Your task to perform on an android device: Search for Mexican restaurants on Maps Image 0: 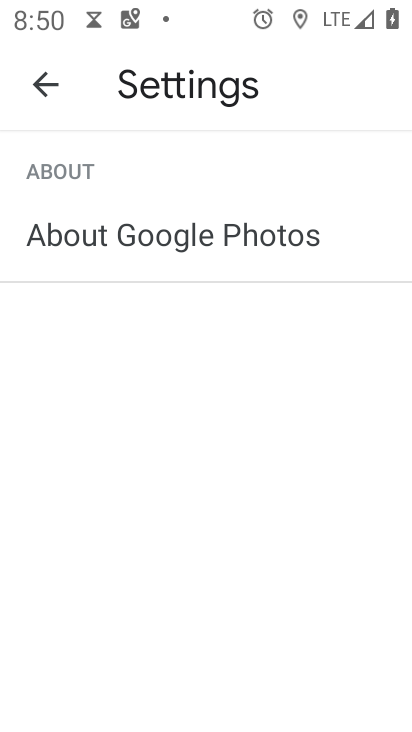
Step 0: press home button
Your task to perform on an android device: Search for Mexican restaurants on Maps Image 1: 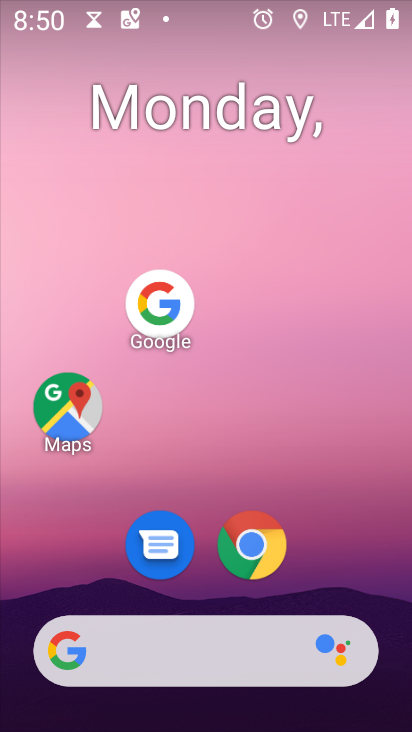
Step 1: click (67, 416)
Your task to perform on an android device: Search for Mexican restaurants on Maps Image 2: 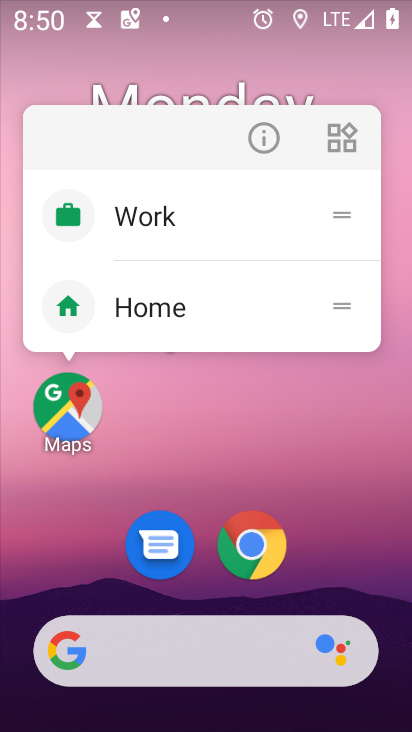
Step 2: click (62, 427)
Your task to perform on an android device: Search for Mexican restaurants on Maps Image 3: 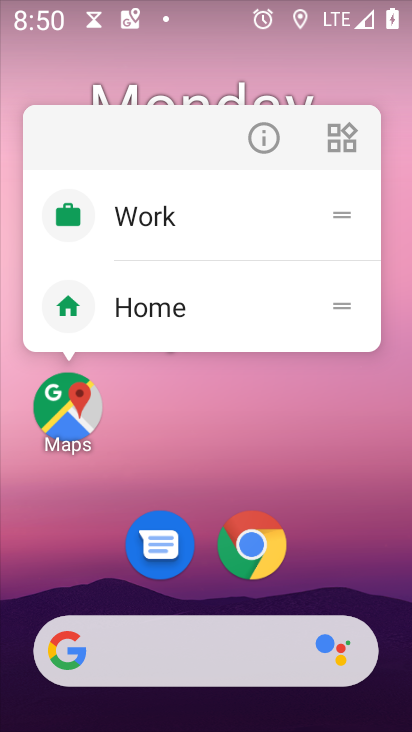
Step 3: click (62, 427)
Your task to perform on an android device: Search for Mexican restaurants on Maps Image 4: 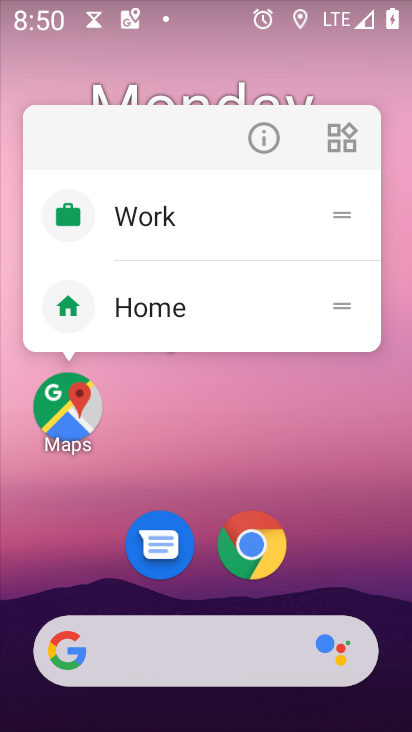
Step 4: click (63, 406)
Your task to perform on an android device: Search for Mexican restaurants on Maps Image 5: 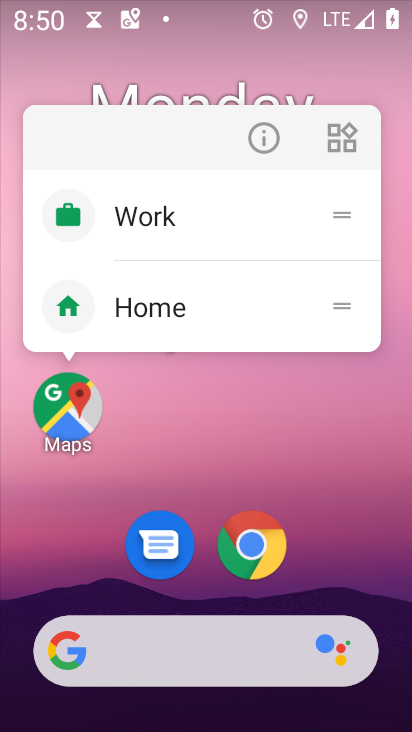
Step 5: click (72, 415)
Your task to perform on an android device: Search for Mexican restaurants on Maps Image 6: 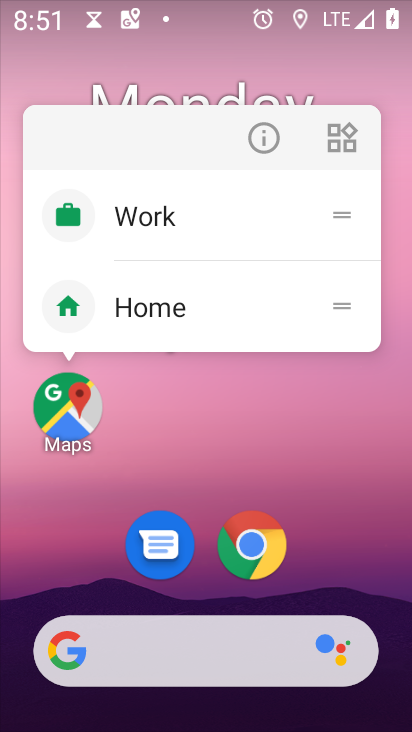
Step 6: click (64, 413)
Your task to perform on an android device: Search for Mexican restaurants on Maps Image 7: 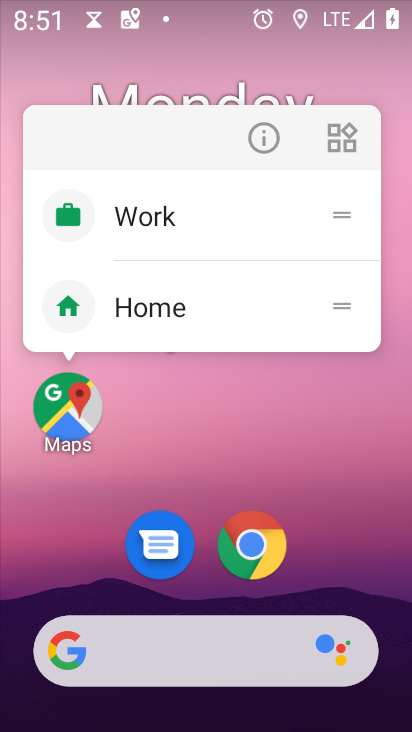
Step 7: click (70, 421)
Your task to perform on an android device: Search for Mexican restaurants on Maps Image 8: 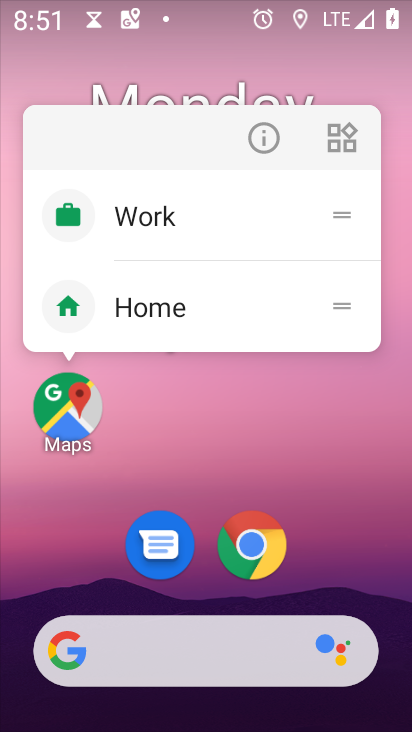
Step 8: click (67, 426)
Your task to perform on an android device: Search for Mexican restaurants on Maps Image 9: 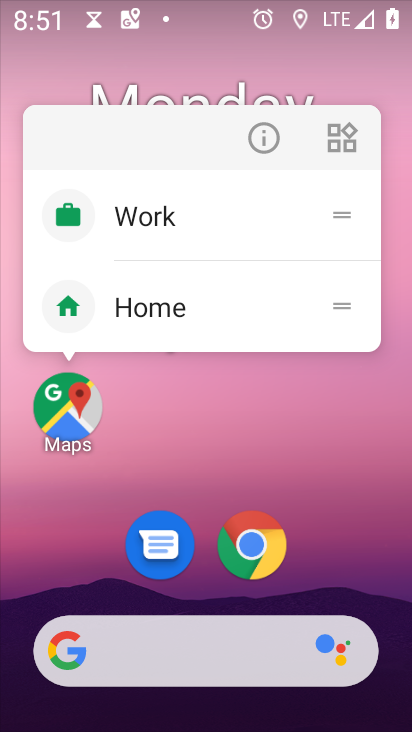
Step 9: click (66, 399)
Your task to perform on an android device: Search for Mexican restaurants on Maps Image 10: 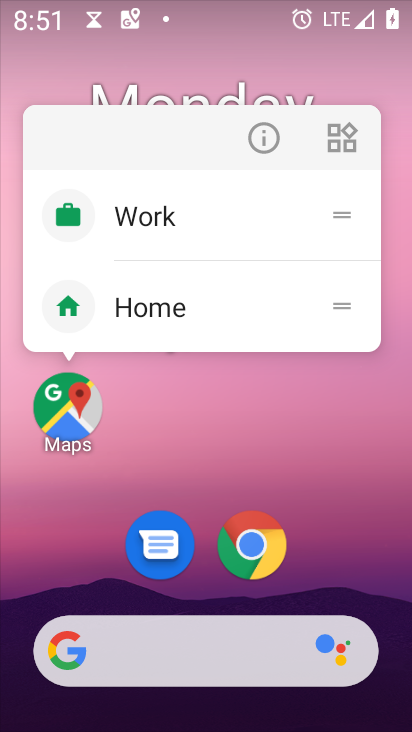
Step 10: click (85, 420)
Your task to perform on an android device: Search for Mexican restaurants on Maps Image 11: 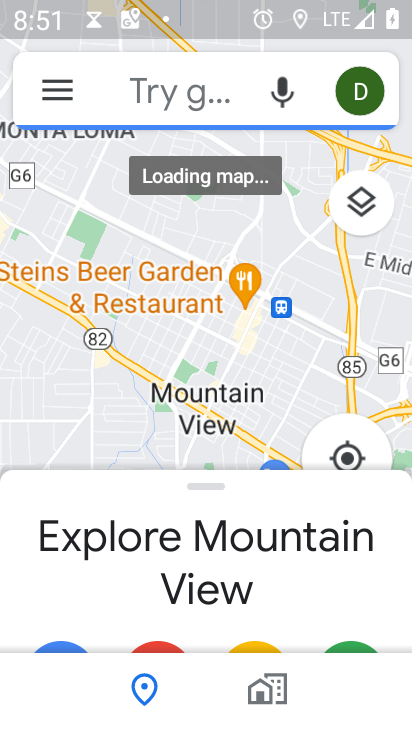
Step 11: click (192, 81)
Your task to perform on an android device: Search for Mexican restaurants on Maps Image 12: 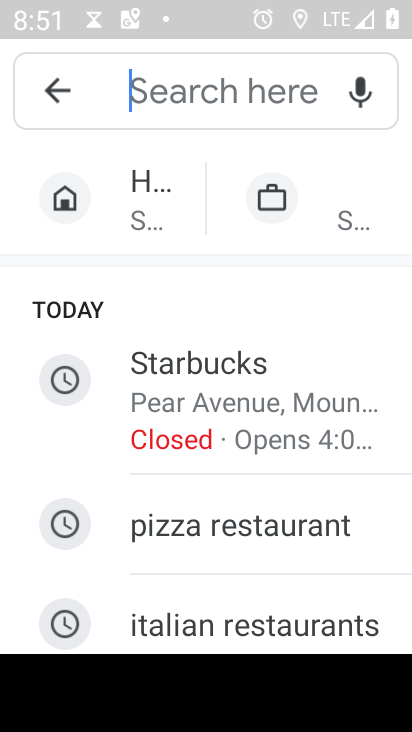
Step 12: drag from (214, 598) to (243, 290)
Your task to perform on an android device: Search for Mexican restaurants on Maps Image 13: 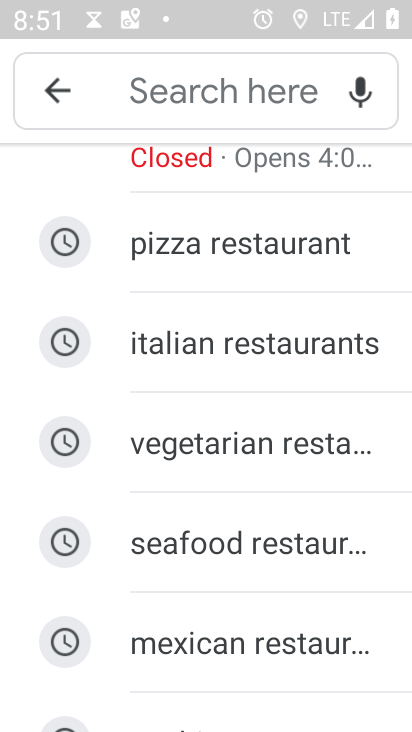
Step 13: click (207, 641)
Your task to perform on an android device: Search for Mexican restaurants on Maps Image 14: 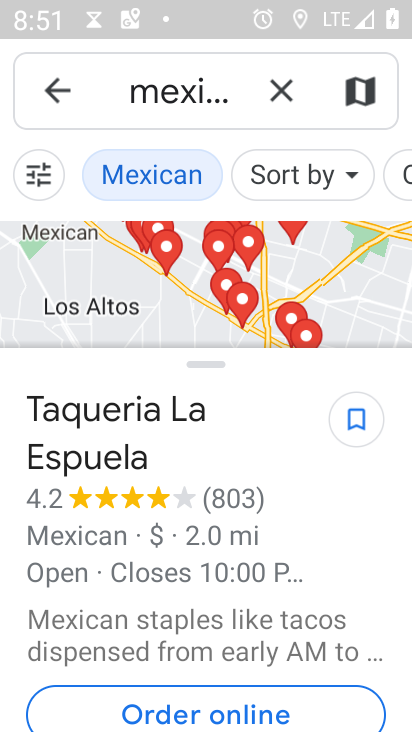
Step 14: task complete